Your task to perform on an android device: see creations saved in the google photos Image 0: 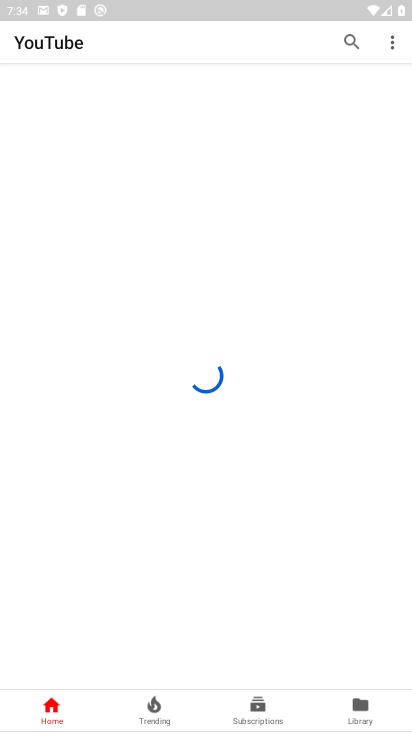
Step 0: click (137, 631)
Your task to perform on an android device: see creations saved in the google photos Image 1: 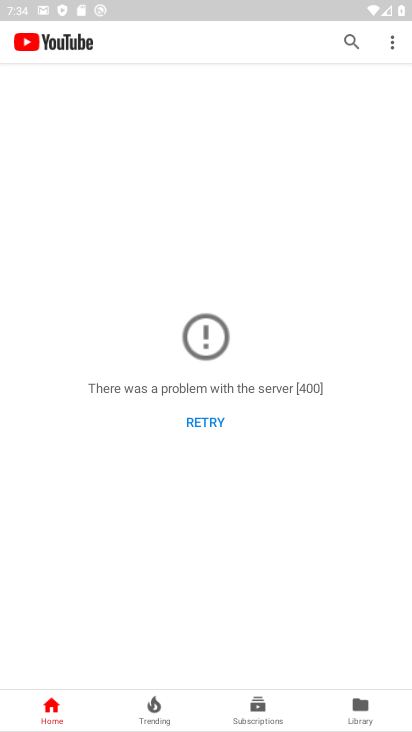
Step 1: press home button
Your task to perform on an android device: see creations saved in the google photos Image 2: 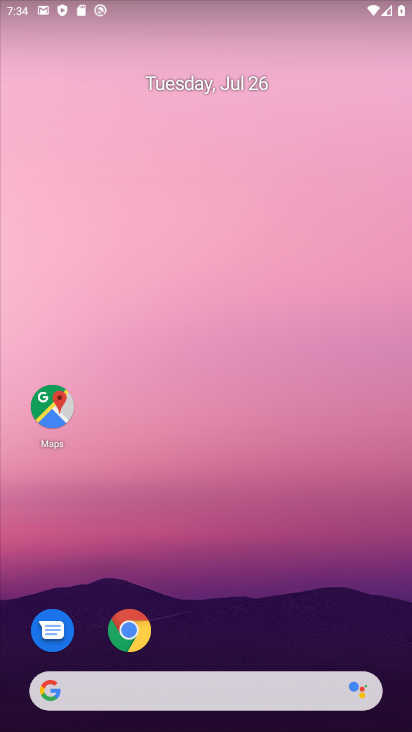
Step 2: drag from (284, 619) to (308, 127)
Your task to perform on an android device: see creations saved in the google photos Image 3: 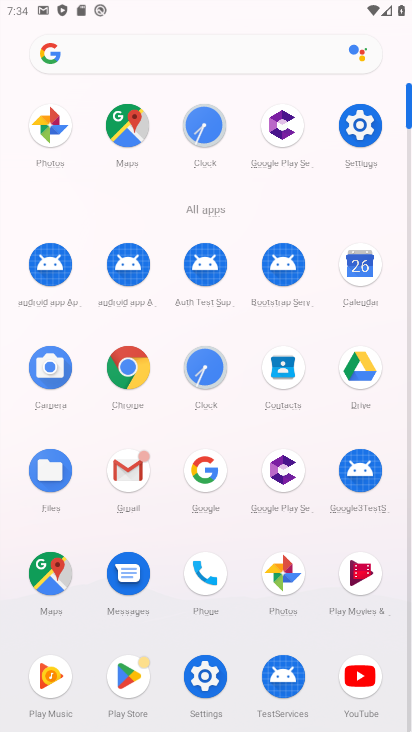
Step 3: click (291, 593)
Your task to perform on an android device: see creations saved in the google photos Image 4: 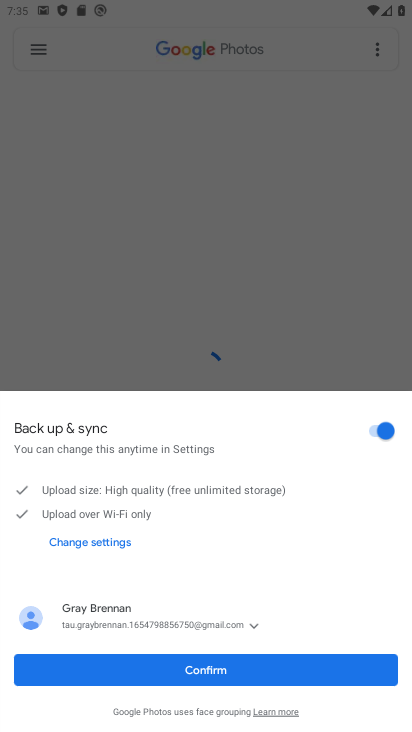
Step 4: click (231, 673)
Your task to perform on an android device: see creations saved in the google photos Image 5: 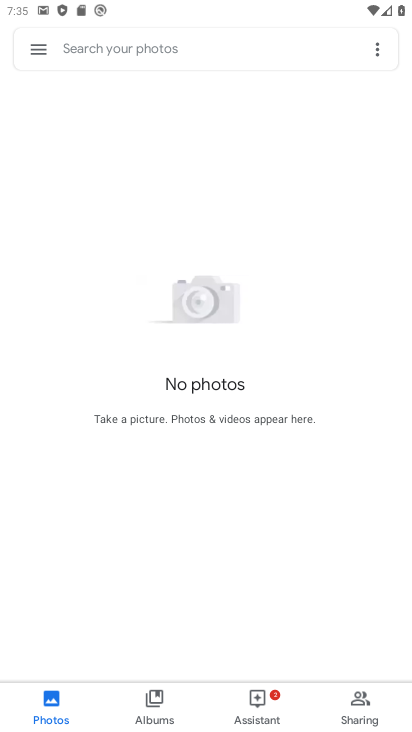
Step 5: task complete